Your task to perform on an android device: turn on bluetooth scan Image 0: 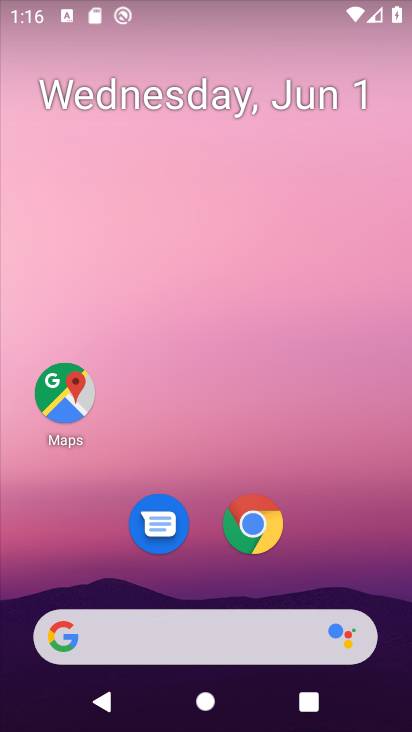
Step 0: drag from (218, 456) to (231, 37)
Your task to perform on an android device: turn on bluetooth scan Image 1: 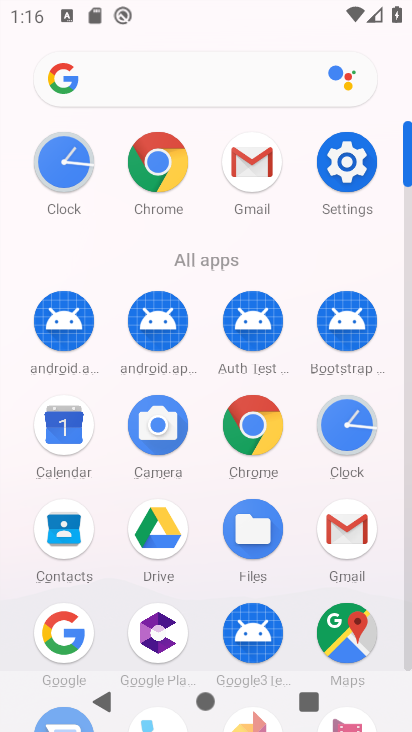
Step 1: click (347, 172)
Your task to perform on an android device: turn on bluetooth scan Image 2: 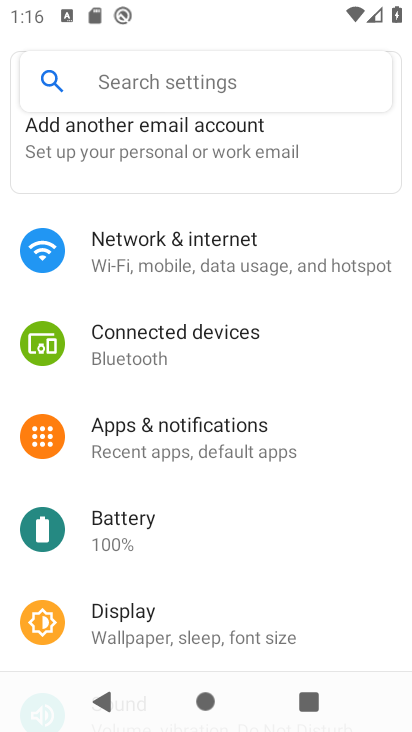
Step 2: drag from (270, 544) to (247, 93)
Your task to perform on an android device: turn on bluetooth scan Image 3: 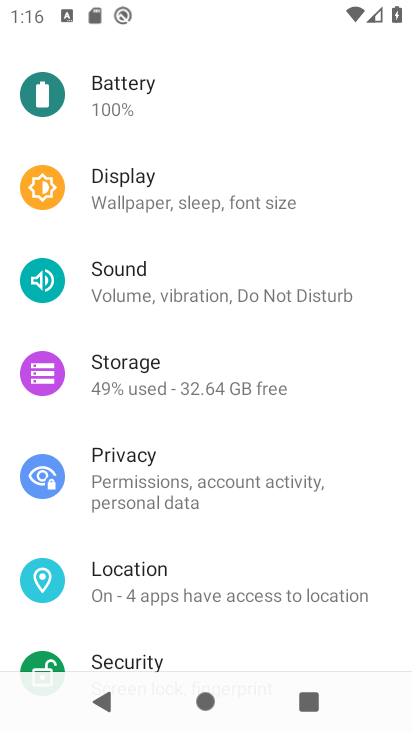
Step 3: click (239, 567)
Your task to perform on an android device: turn on bluetooth scan Image 4: 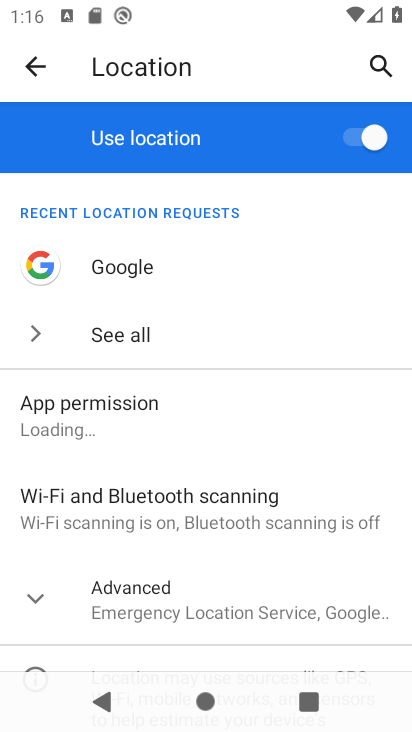
Step 4: drag from (275, 565) to (266, 280)
Your task to perform on an android device: turn on bluetooth scan Image 5: 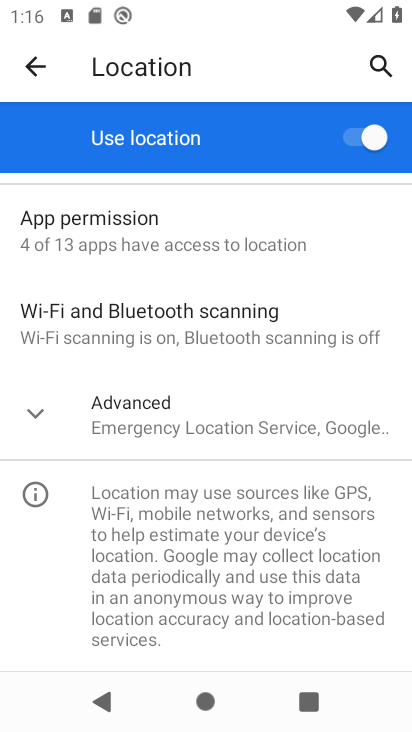
Step 5: click (297, 327)
Your task to perform on an android device: turn on bluetooth scan Image 6: 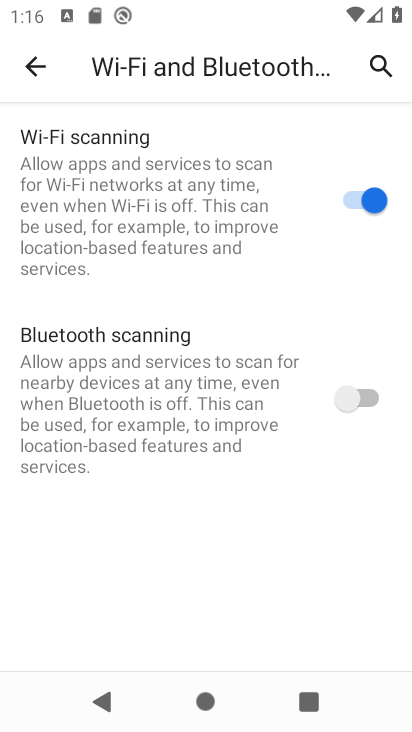
Step 6: click (364, 391)
Your task to perform on an android device: turn on bluetooth scan Image 7: 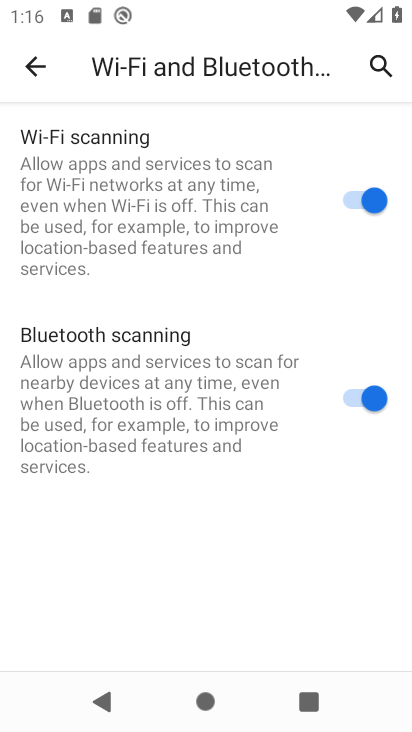
Step 7: task complete